Your task to perform on an android device: toggle javascript in the chrome app Image 0: 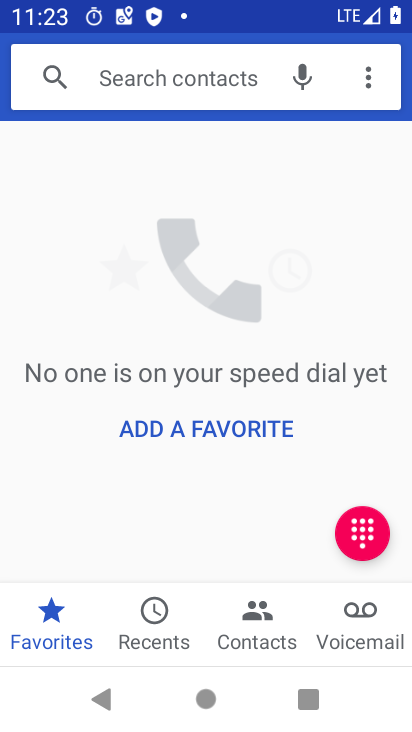
Step 0: press home button
Your task to perform on an android device: toggle javascript in the chrome app Image 1: 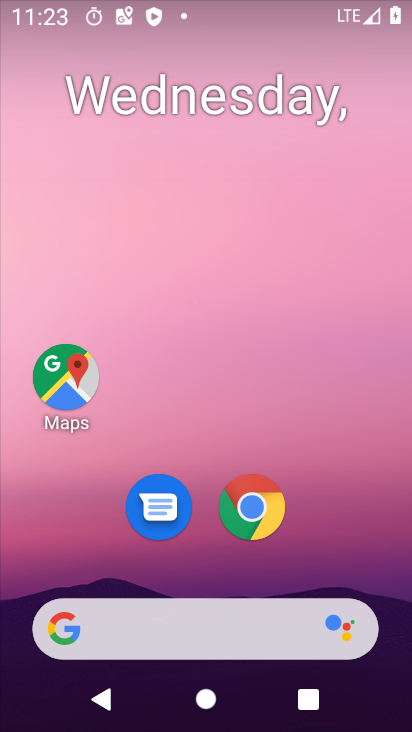
Step 1: click (254, 504)
Your task to perform on an android device: toggle javascript in the chrome app Image 2: 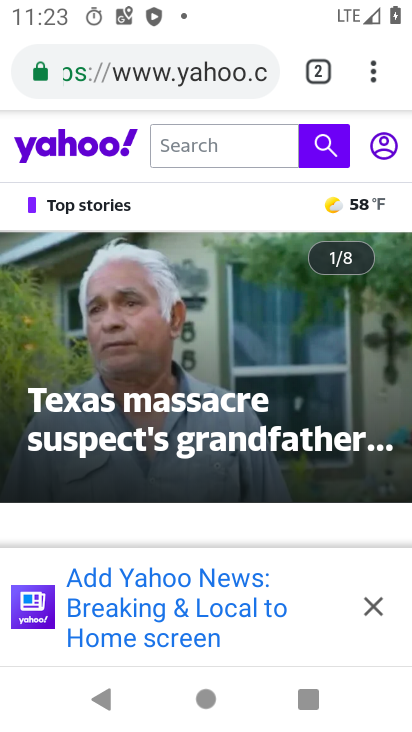
Step 2: click (371, 77)
Your task to perform on an android device: toggle javascript in the chrome app Image 3: 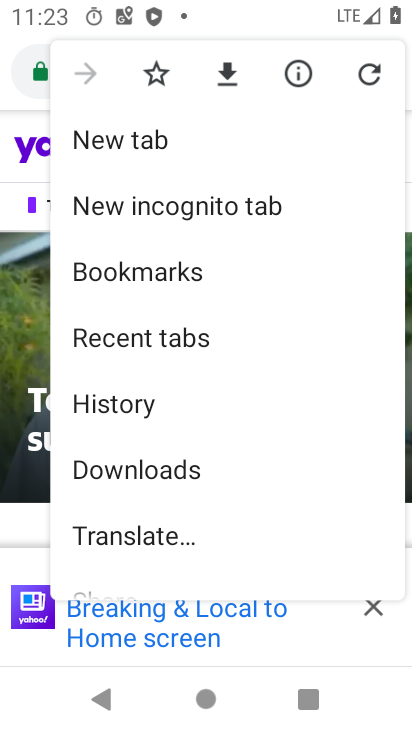
Step 3: drag from (139, 547) to (148, 277)
Your task to perform on an android device: toggle javascript in the chrome app Image 4: 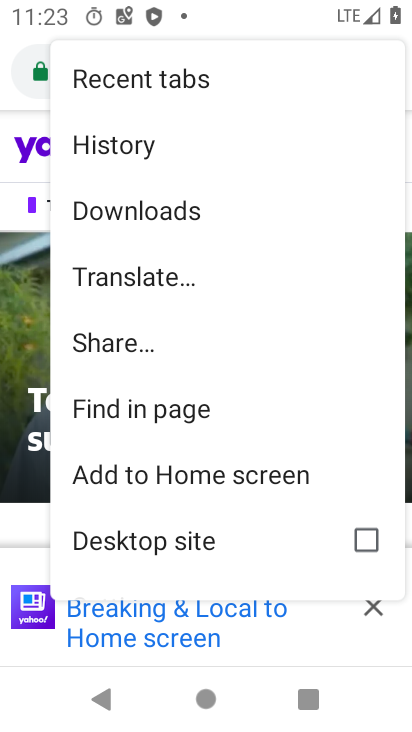
Step 4: drag from (173, 563) to (175, 284)
Your task to perform on an android device: toggle javascript in the chrome app Image 5: 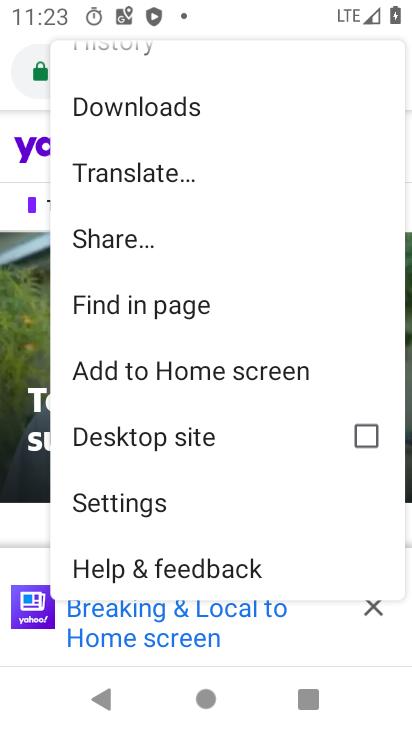
Step 5: click (141, 504)
Your task to perform on an android device: toggle javascript in the chrome app Image 6: 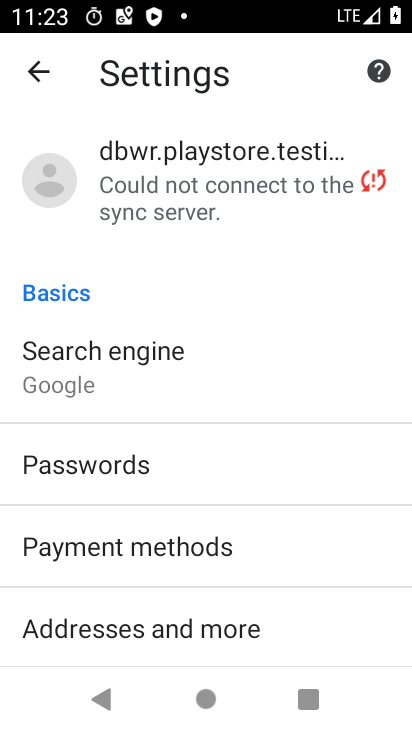
Step 6: drag from (139, 623) to (139, 131)
Your task to perform on an android device: toggle javascript in the chrome app Image 7: 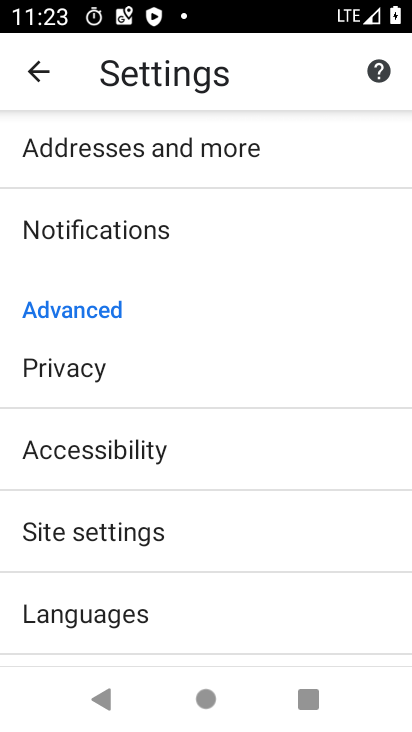
Step 7: drag from (112, 601) to (127, 290)
Your task to perform on an android device: toggle javascript in the chrome app Image 8: 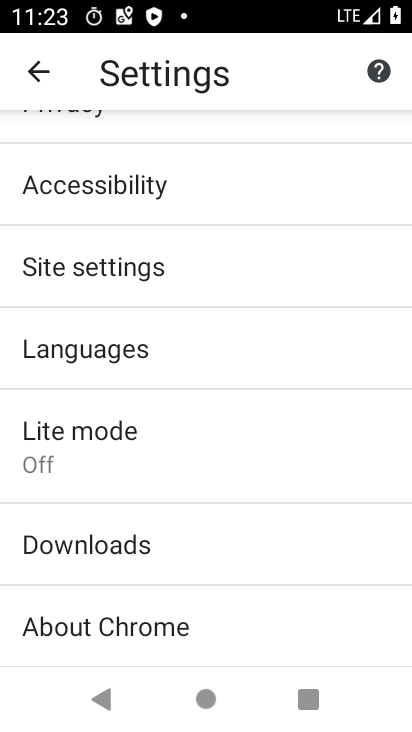
Step 8: click (121, 265)
Your task to perform on an android device: toggle javascript in the chrome app Image 9: 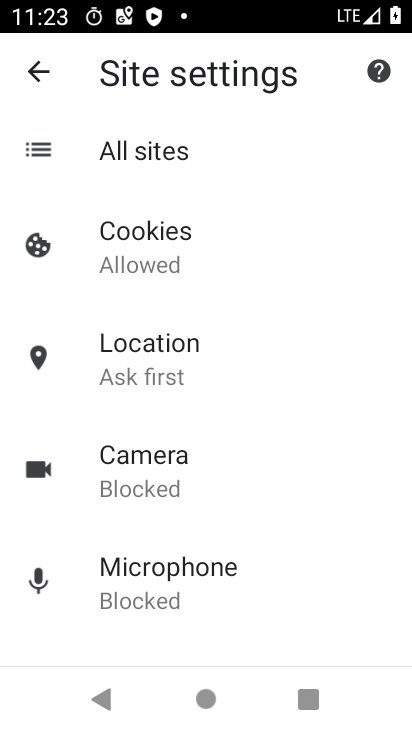
Step 9: drag from (167, 620) to (196, 250)
Your task to perform on an android device: toggle javascript in the chrome app Image 10: 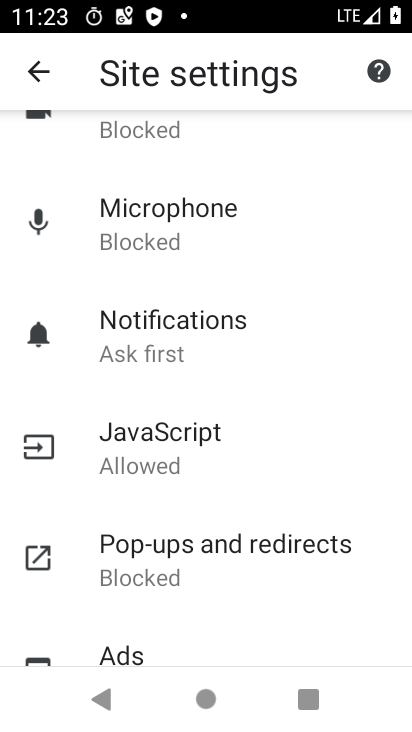
Step 10: click (158, 444)
Your task to perform on an android device: toggle javascript in the chrome app Image 11: 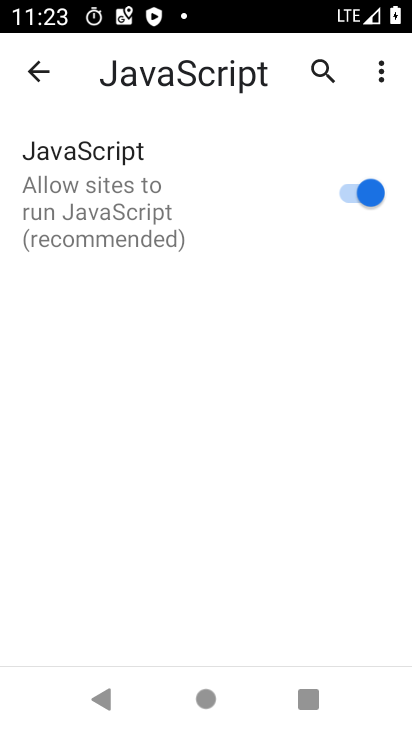
Step 11: click (352, 193)
Your task to perform on an android device: toggle javascript in the chrome app Image 12: 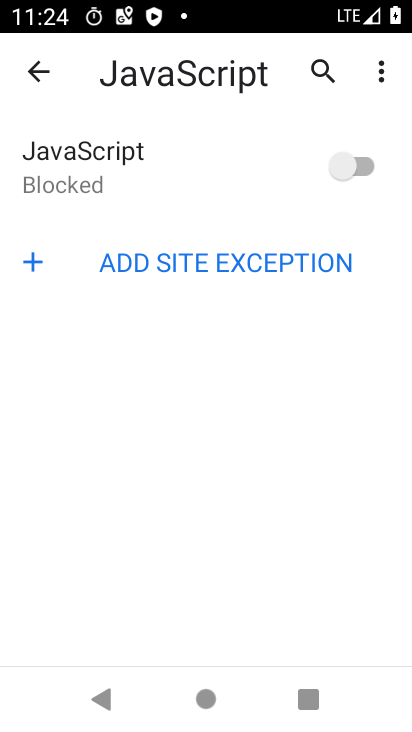
Step 12: task complete